Your task to perform on an android device: Google the capital of Venezuela Image 0: 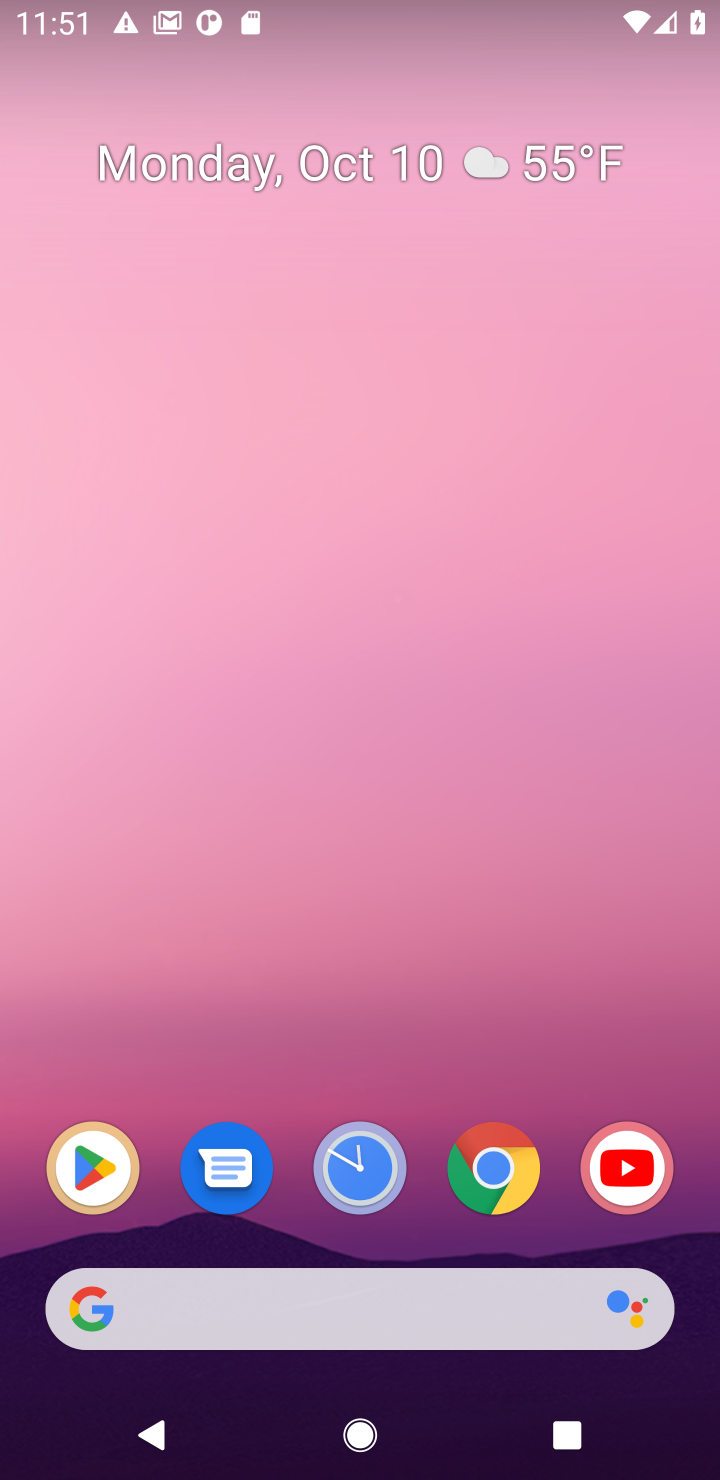
Step 0: task complete